Your task to perform on an android device: Empty the shopping cart on costco.com. Add usb-c to usb-b to the cart on costco.com Image 0: 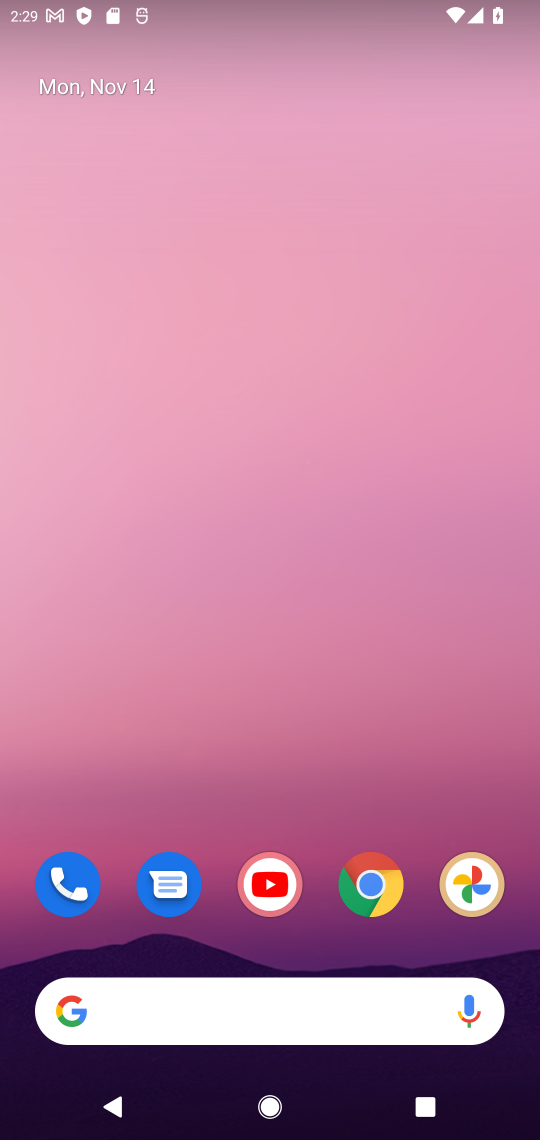
Step 0: click (370, 886)
Your task to perform on an android device: Empty the shopping cart on costco.com. Add usb-c to usb-b to the cart on costco.com Image 1: 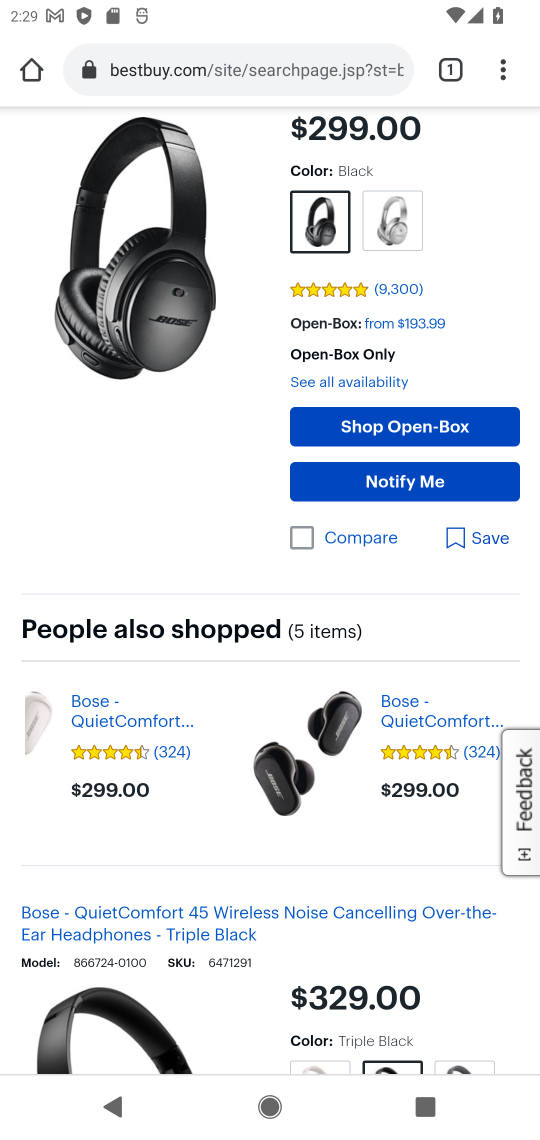
Step 1: click (234, 70)
Your task to perform on an android device: Empty the shopping cart on costco.com. Add usb-c to usb-b to the cart on costco.com Image 2: 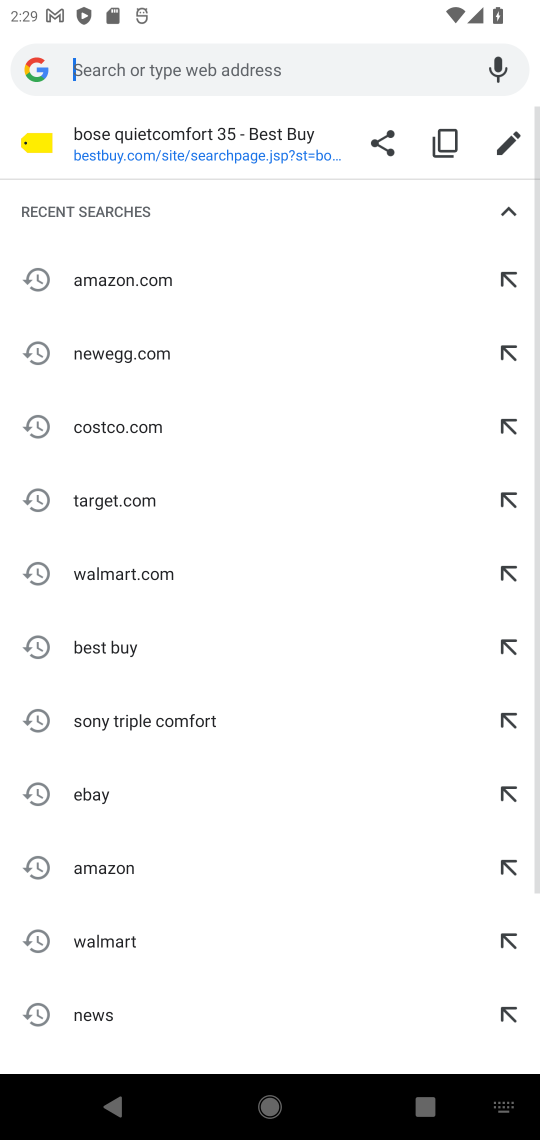
Step 2: click (117, 417)
Your task to perform on an android device: Empty the shopping cart on costco.com. Add usb-c to usb-b to the cart on costco.com Image 3: 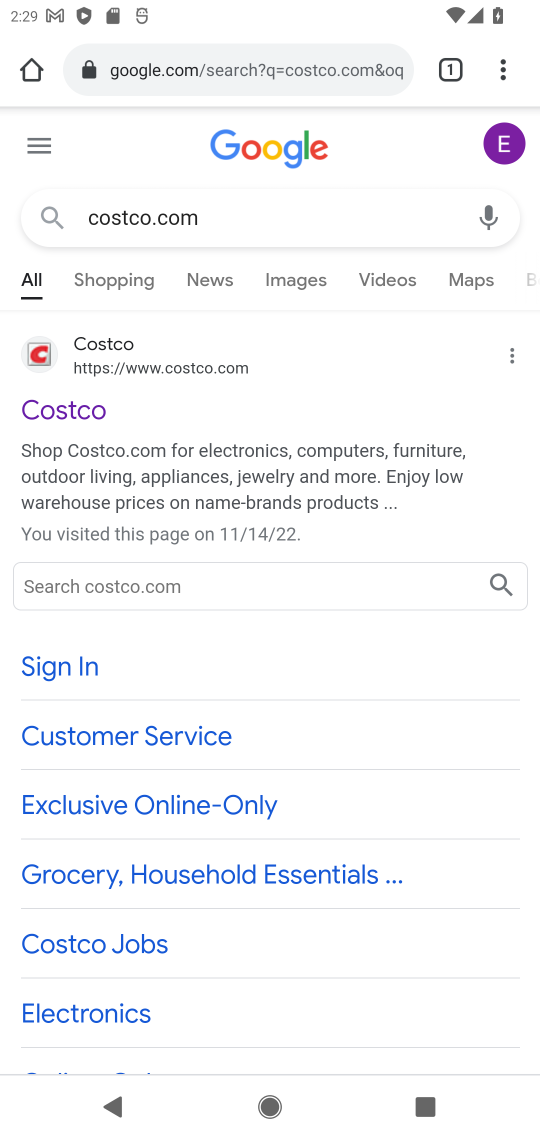
Step 3: drag from (341, 877) to (379, 771)
Your task to perform on an android device: Empty the shopping cart on costco.com. Add usb-c to usb-b to the cart on costco.com Image 4: 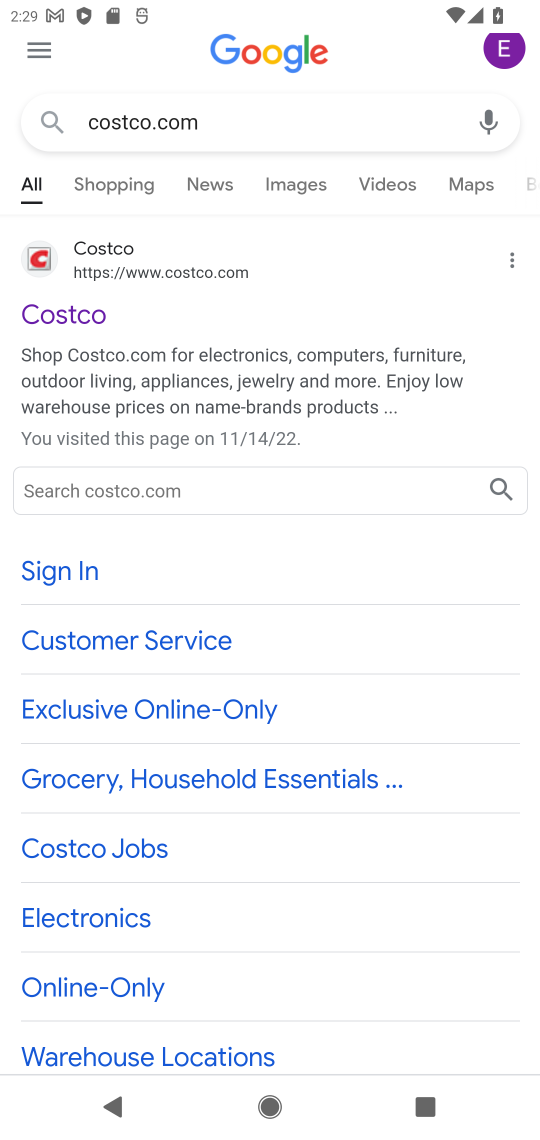
Step 4: click (173, 275)
Your task to perform on an android device: Empty the shopping cart on costco.com. Add usb-c to usb-b to the cart on costco.com Image 5: 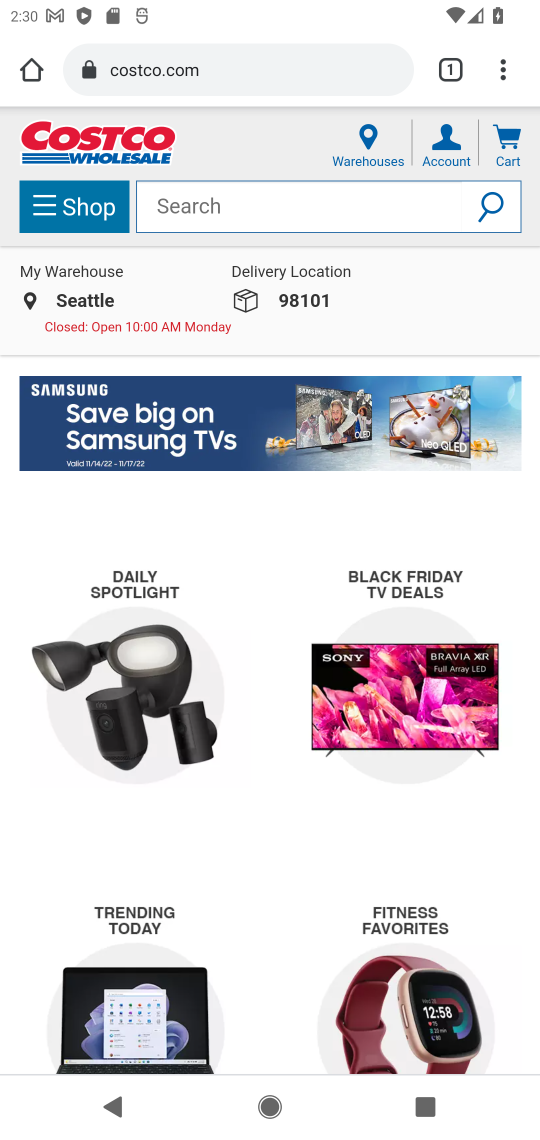
Step 5: click (506, 151)
Your task to perform on an android device: Empty the shopping cart on costco.com. Add usb-c to usb-b to the cart on costco.com Image 6: 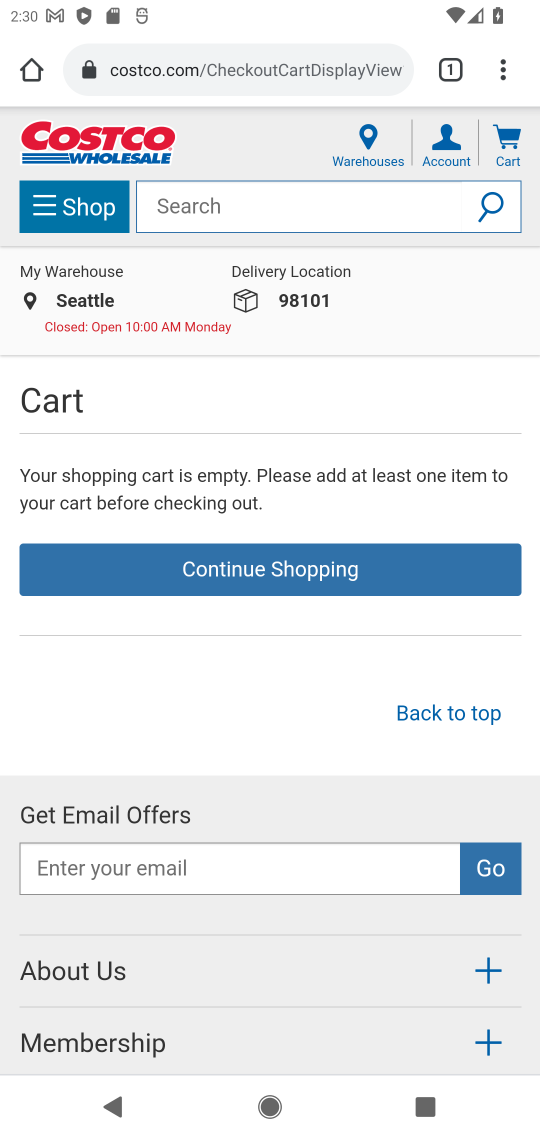
Step 6: click (303, 191)
Your task to perform on an android device: Empty the shopping cart on costco.com. Add usb-c to usb-b to the cart on costco.com Image 7: 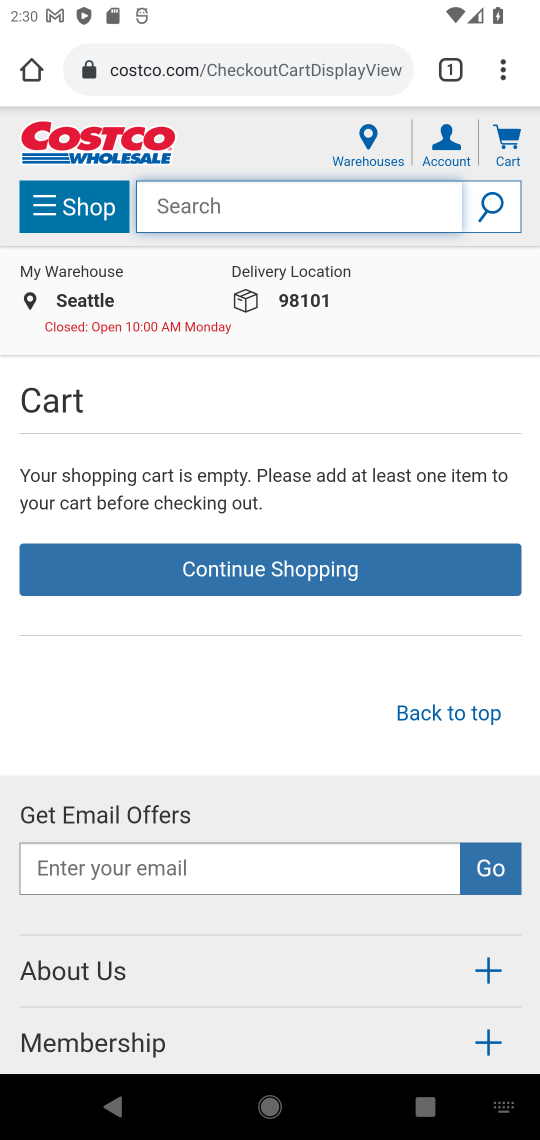
Step 7: type "usb-c to usb-b"
Your task to perform on an android device: Empty the shopping cart on costco.com. Add usb-c to usb-b to the cart on costco.com Image 8: 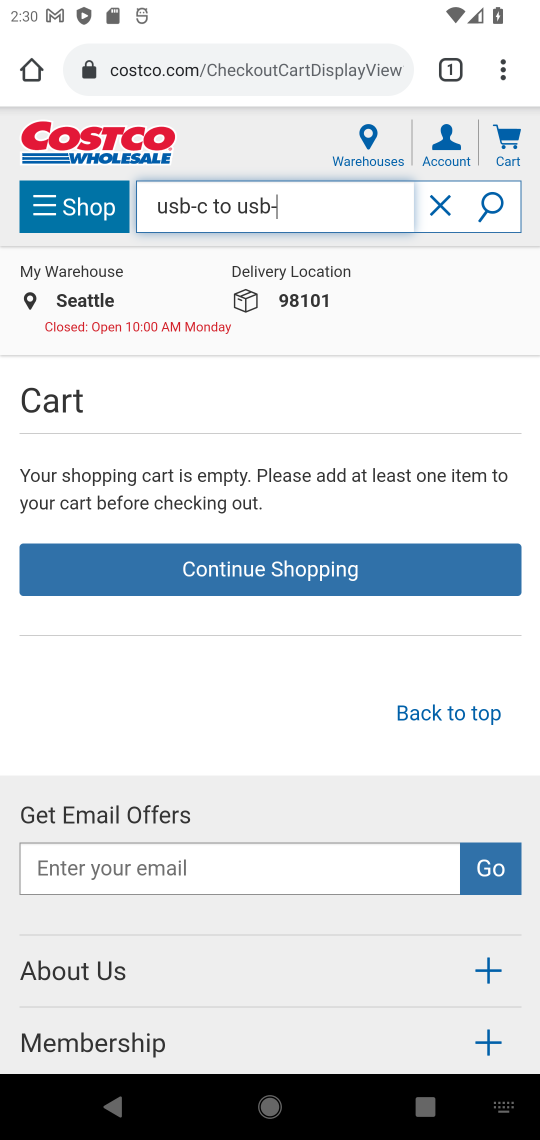
Step 8: press enter
Your task to perform on an android device: Empty the shopping cart on costco.com. Add usb-c to usb-b to the cart on costco.com Image 9: 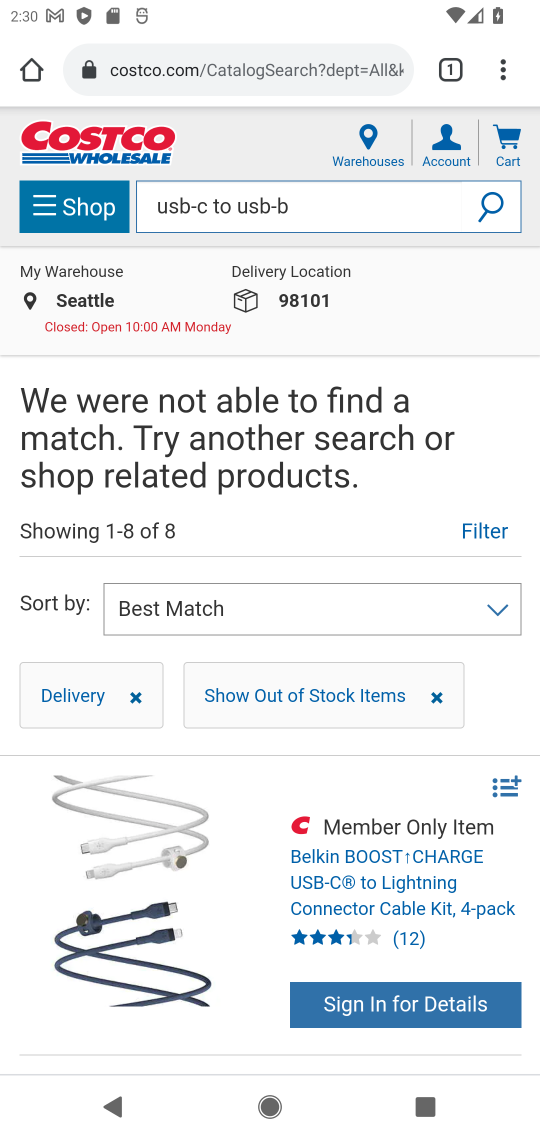
Step 9: task complete